Your task to perform on an android device: Turn on the flashlight Image 0: 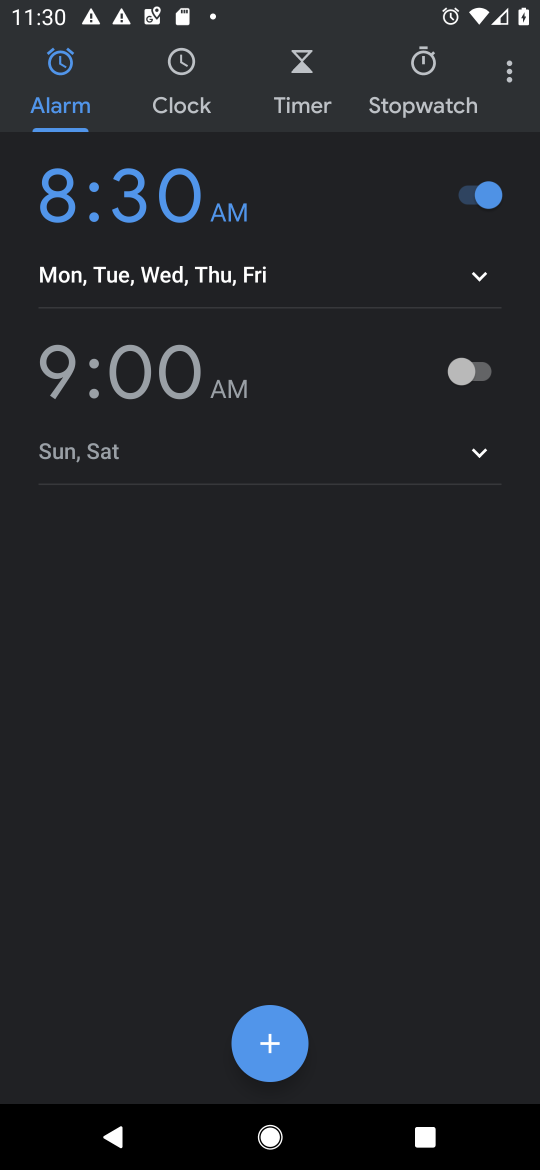
Step 0: press home button
Your task to perform on an android device: Turn on the flashlight Image 1: 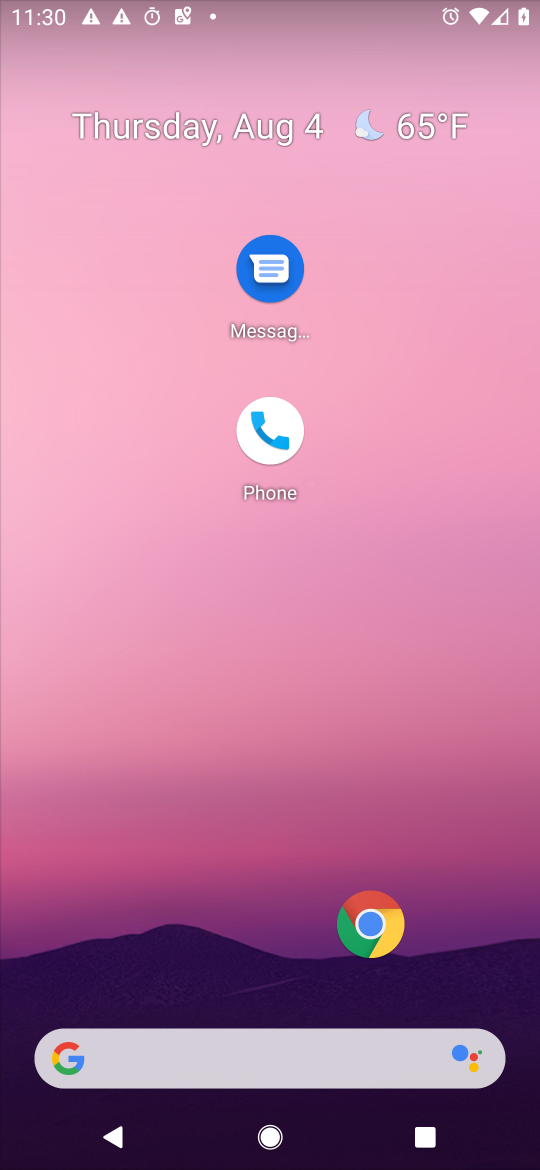
Step 1: drag from (282, 976) to (308, 337)
Your task to perform on an android device: Turn on the flashlight Image 2: 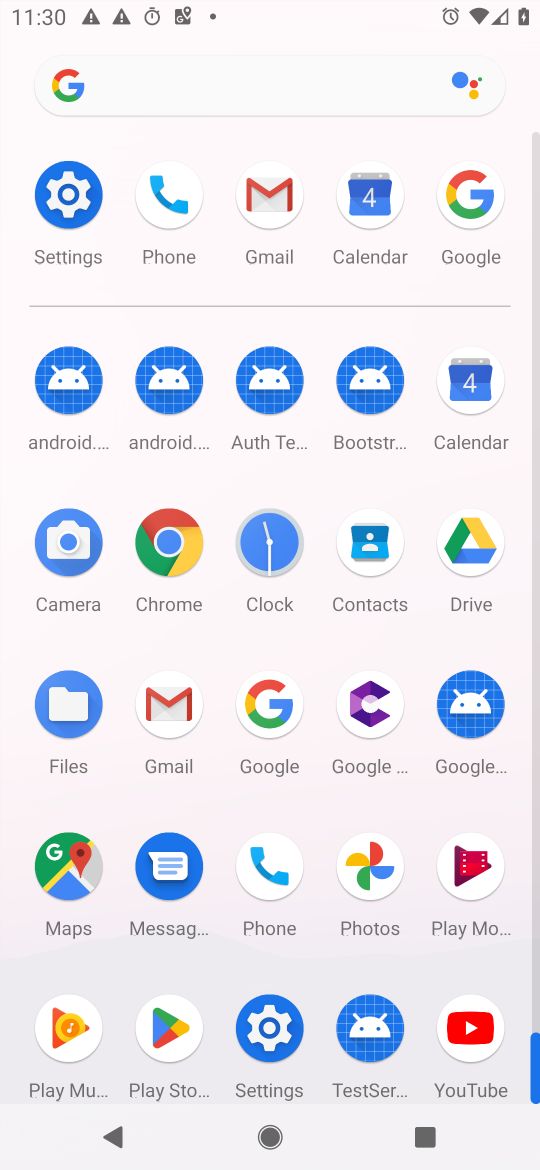
Step 2: click (45, 171)
Your task to perform on an android device: Turn on the flashlight Image 3: 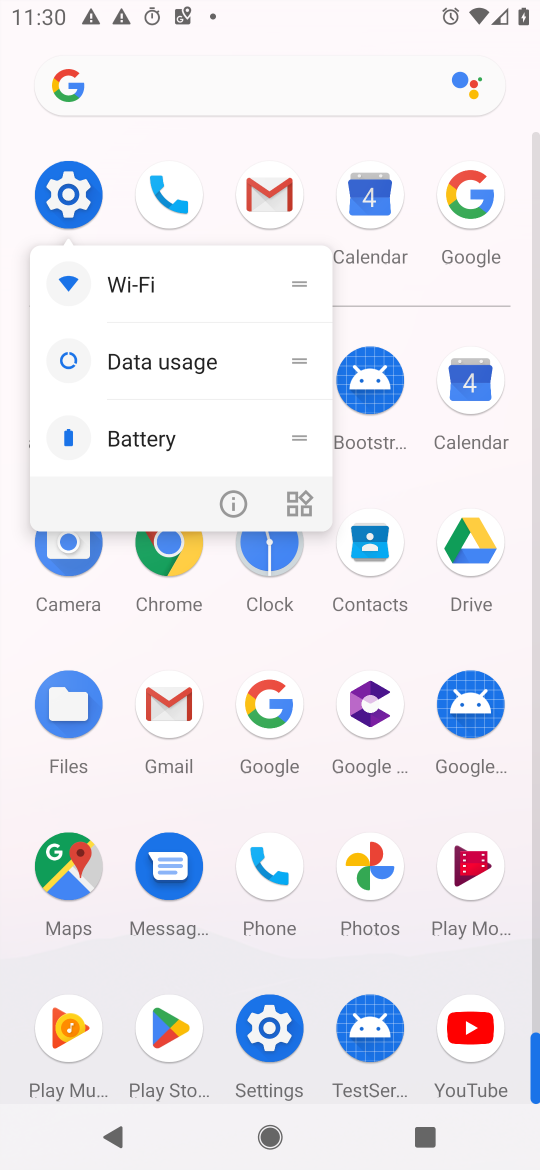
Step 3: click (228, 506)
Your task to perform on an android device: Turn on the flashlight Image 4: 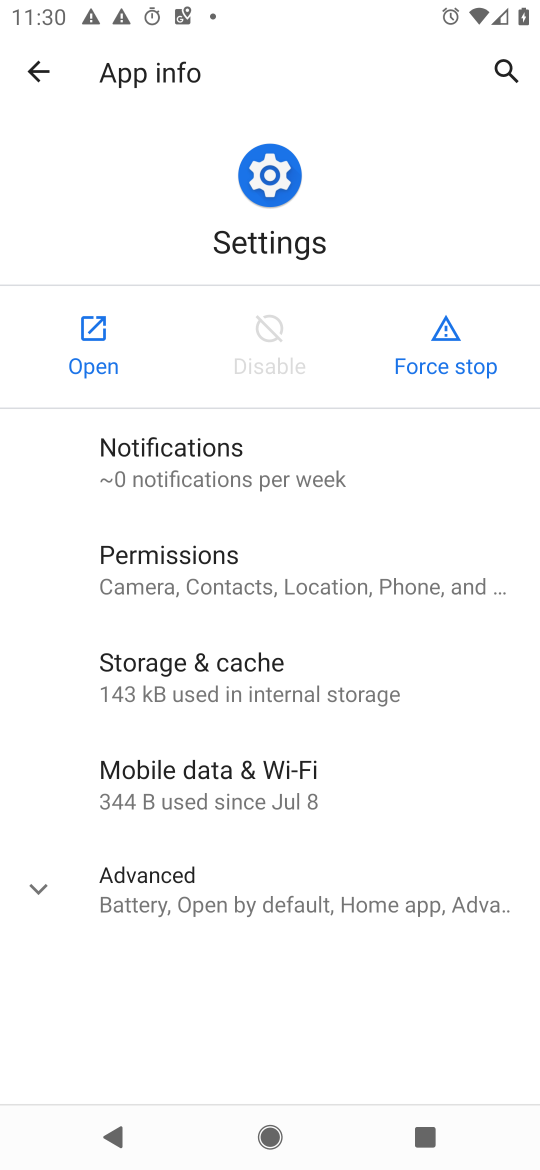
Step 4: click (101, 317)
Your task to perform on an android device: Turn on the flashlight Image 5: 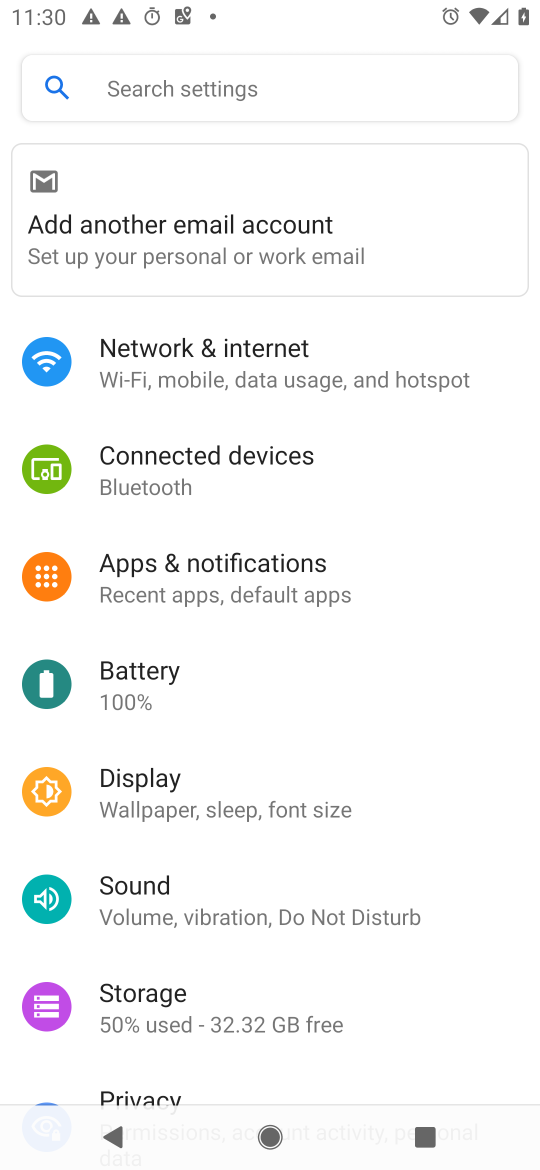
Step 5: click (256, 101)
Your task to perform on an android device: Turn on the flashlight Image 6: 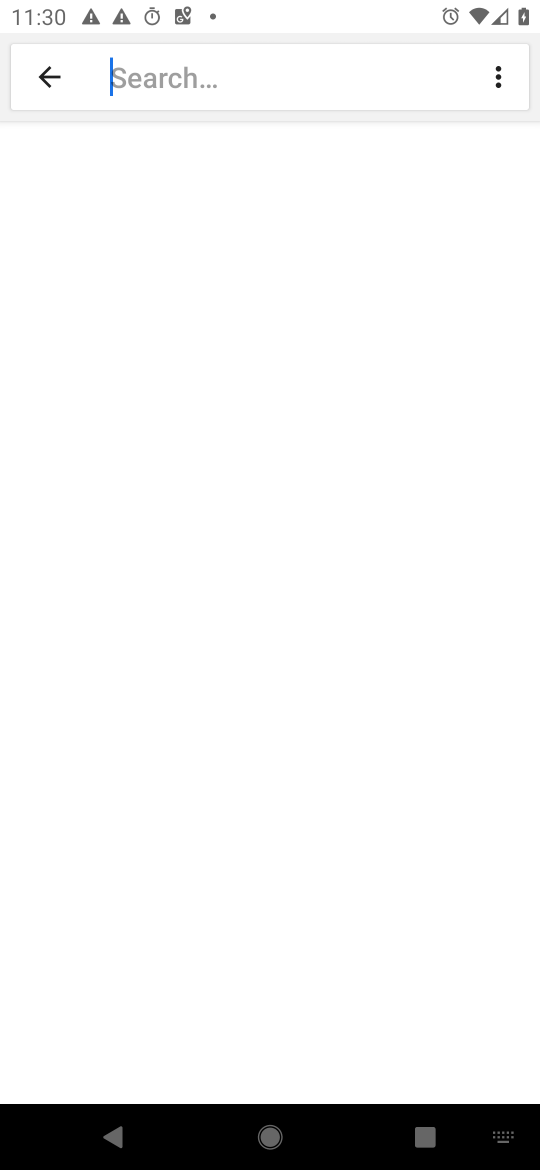
Step 6: type "flashlight"
Your task to perform on an android device: Turn on the flashlight Image 7: 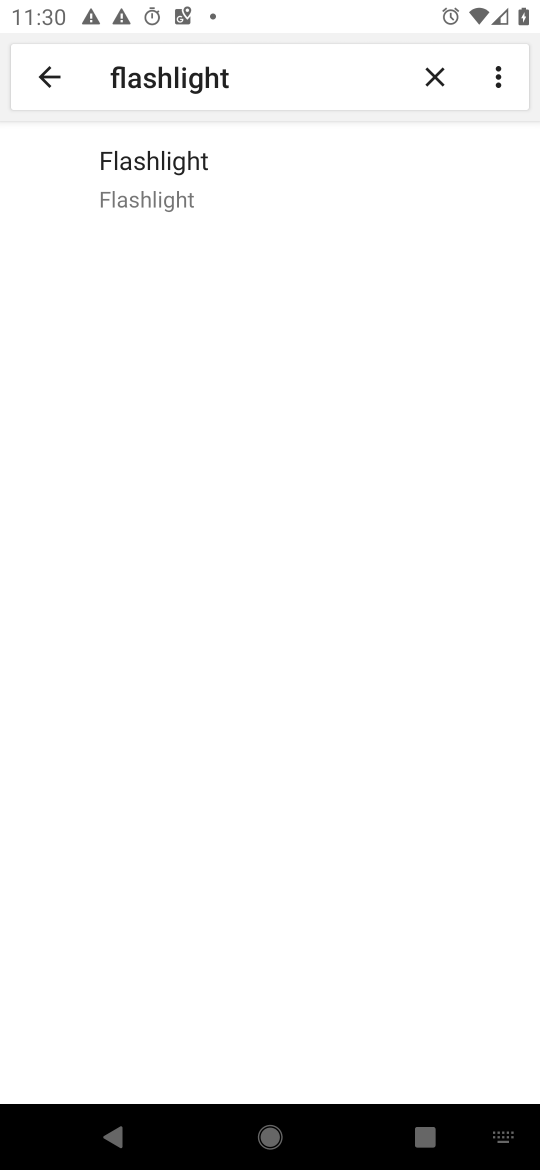
Step 7: click (222, 184)
Your task to perform on an android device: Turn on the flashlight Image 8: 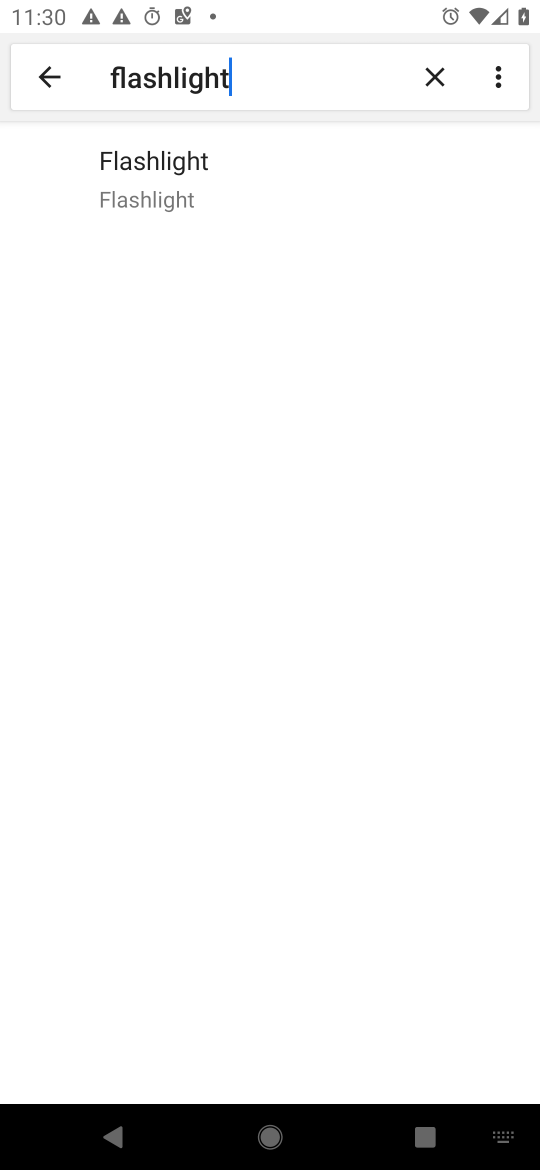
Step 8: click (214, 184)
Your task to perform on an android device: Turn on the flashlight Image 9: 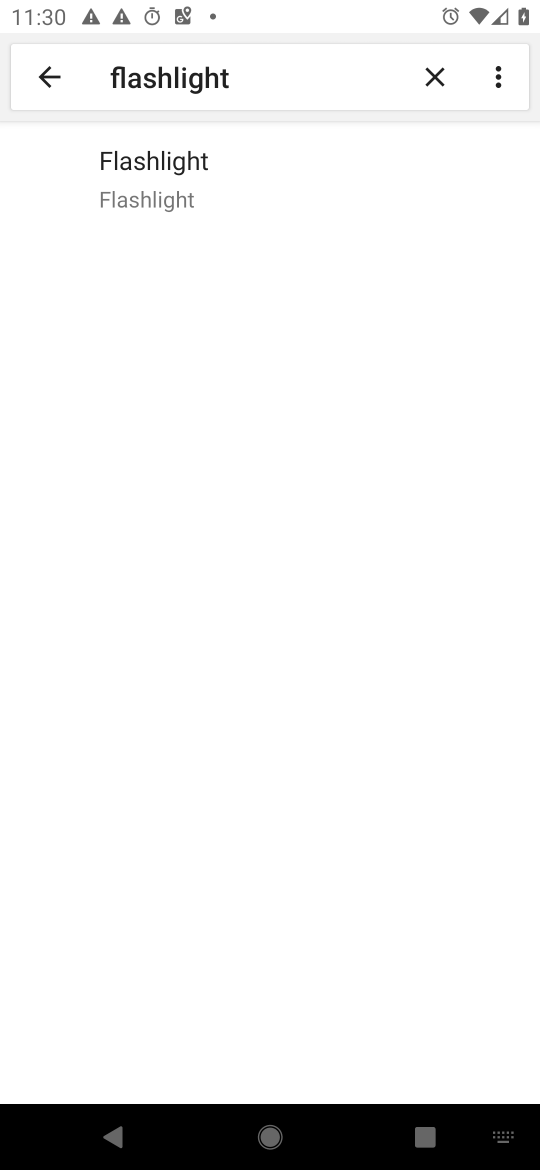
Step 9: task complete